Your task to perform on an android device: Search for pizza restaurants on Maps Image 0: 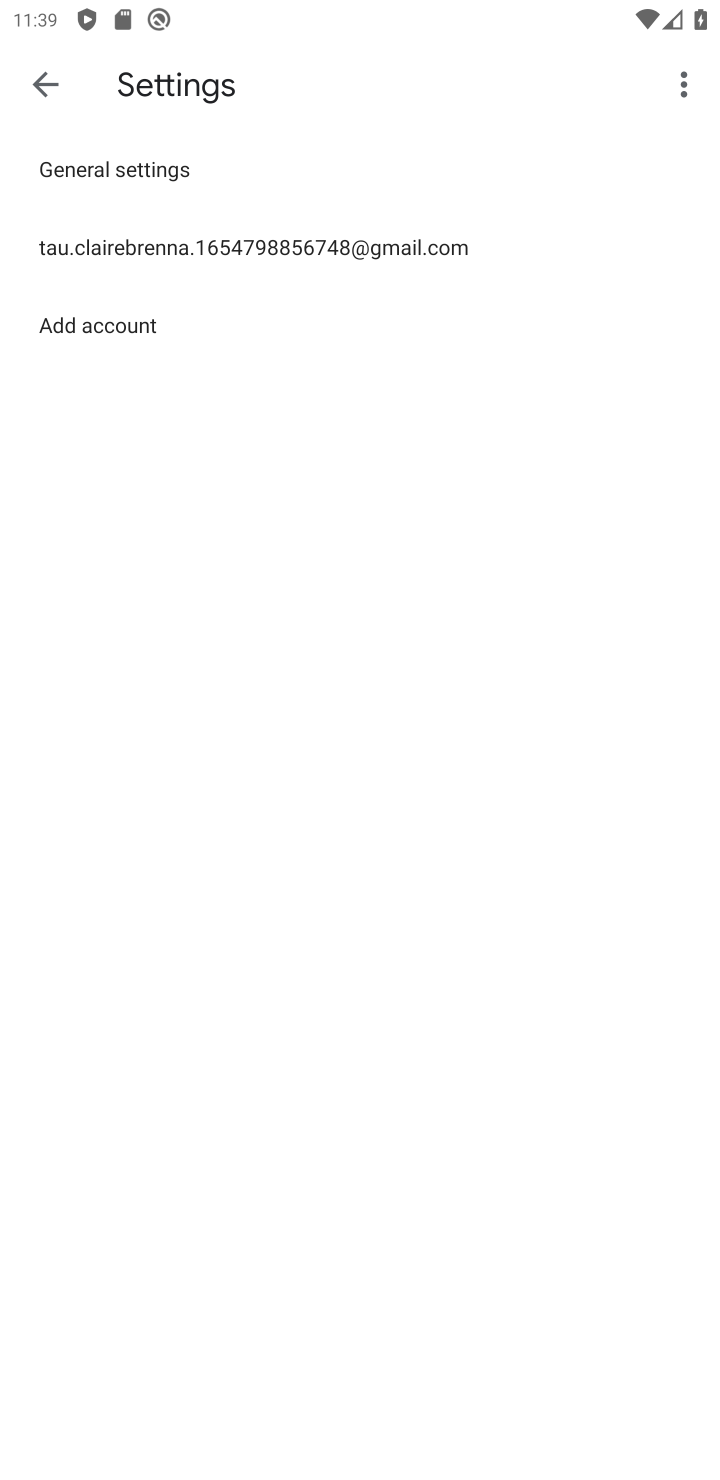
Step 0: press home button
Your task to perform on an android device: Search for pizza restaurants on Maps Image 1: 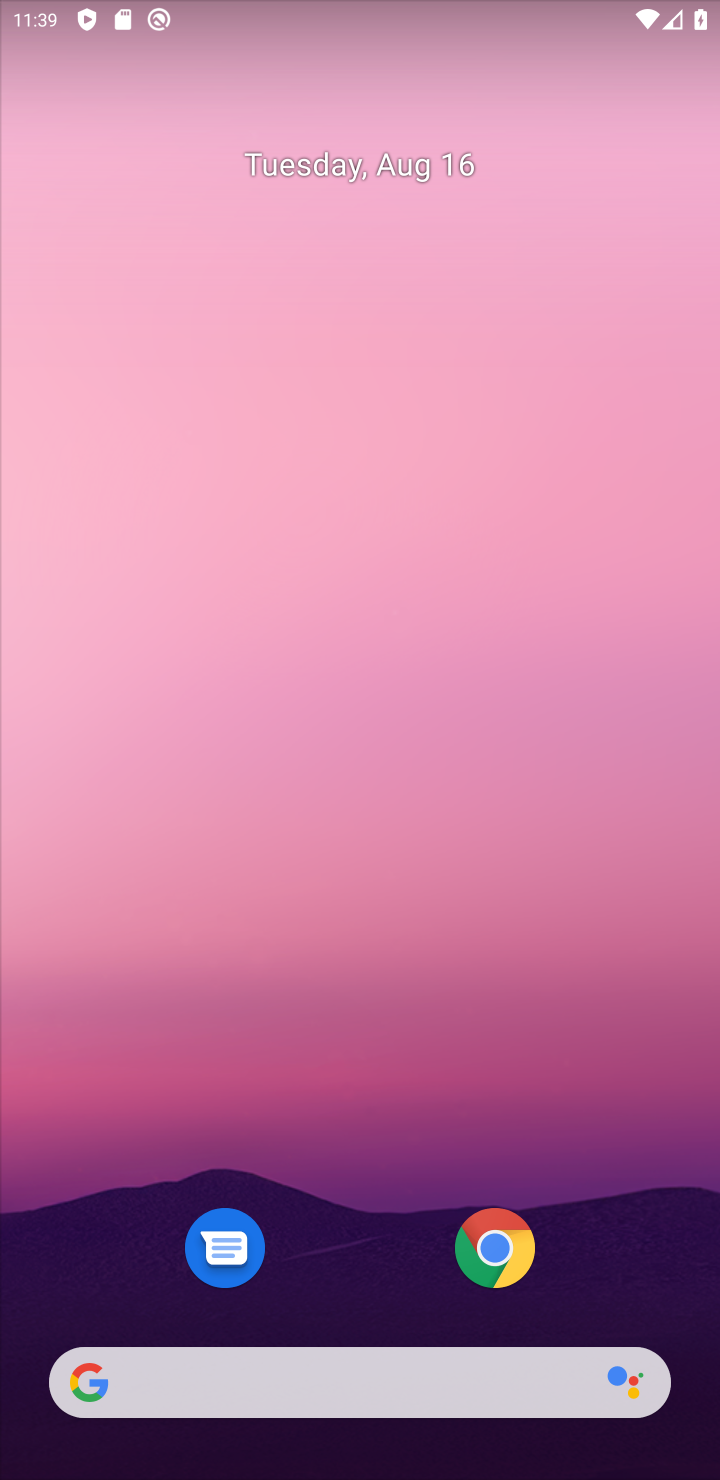
Step 1: drag from (349, 503) to (373, 285)
Your task to perform on an android device: Search for pizza restaurants on Maps Image 2: 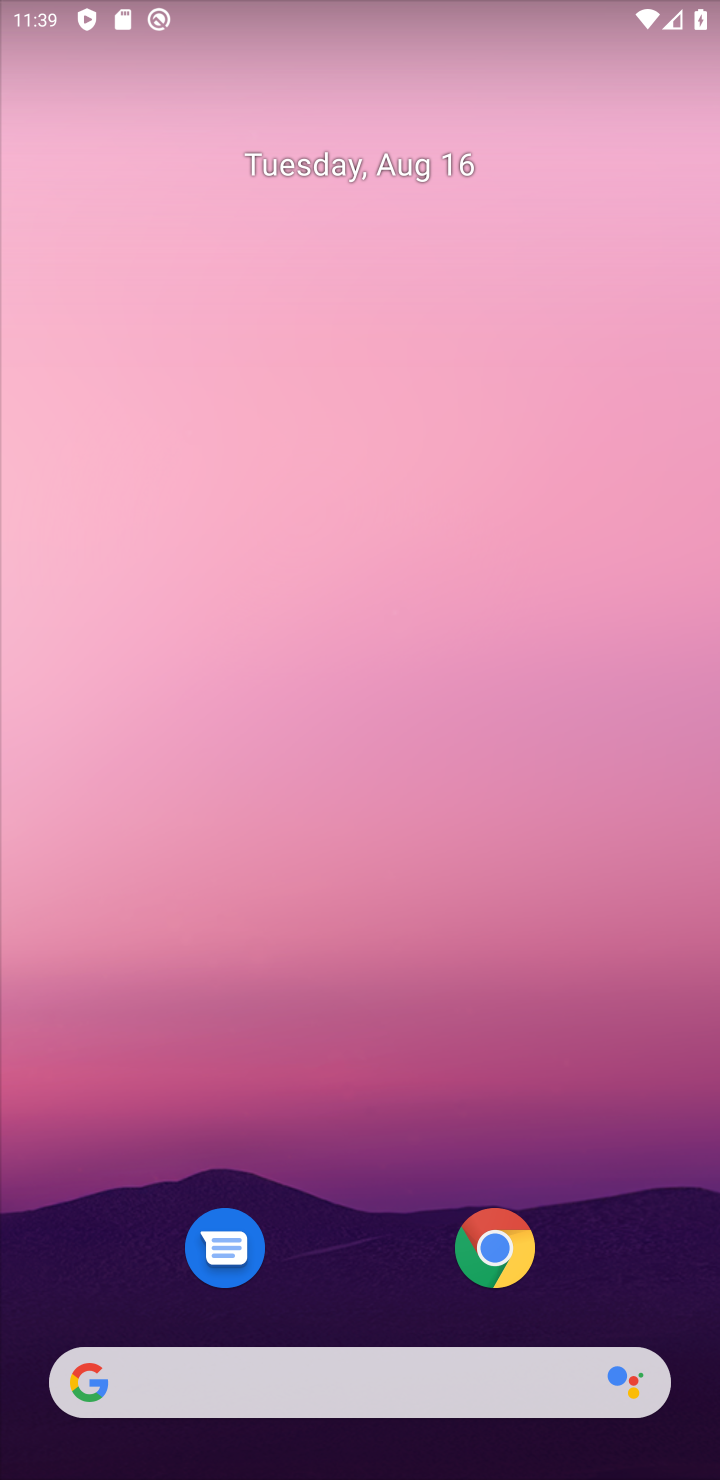
Step 2: drag from (325, 1014) to (355, 214)
Your task to perform on an android device: Search for pizza restaurants on Maps Image 3: 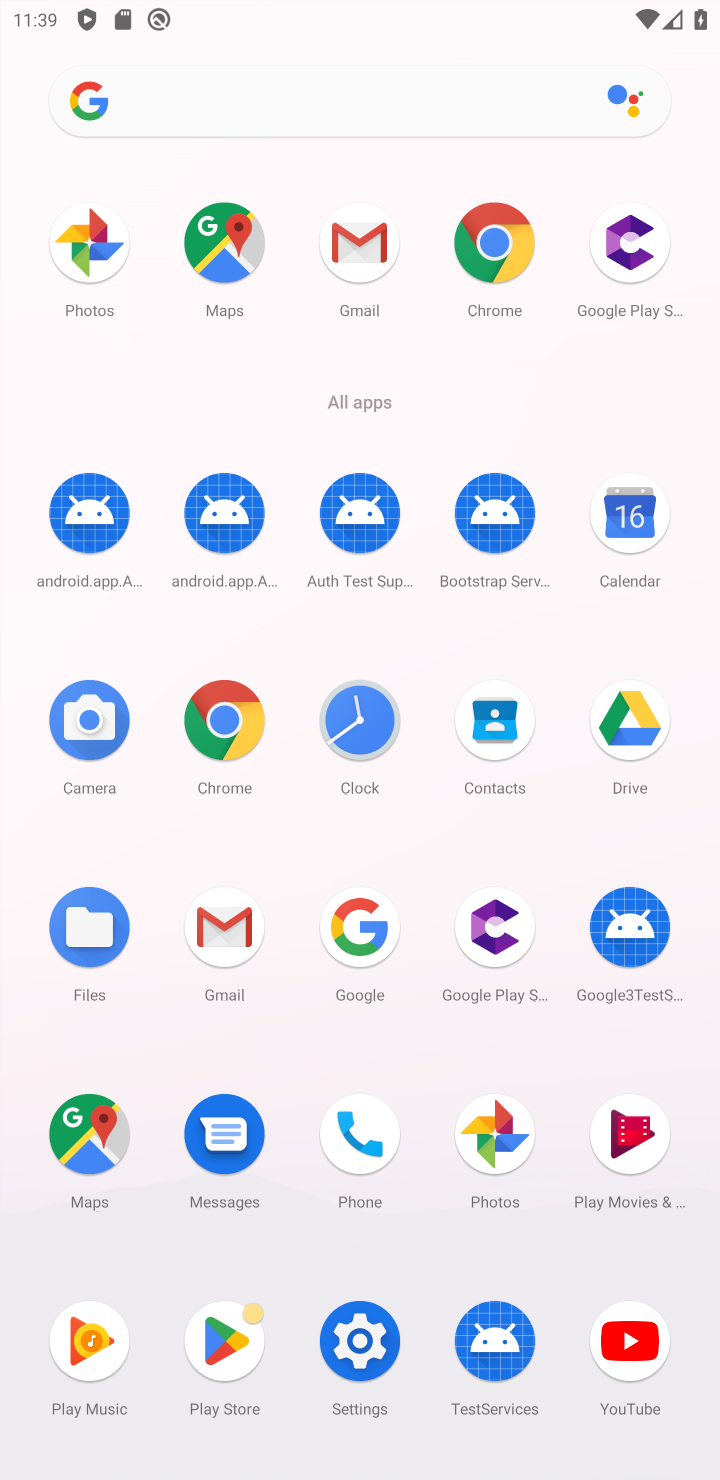
Step 3: click (522, 252)
Your task to perform on an android device: Search for pizza restaurants on Maps Image 4: 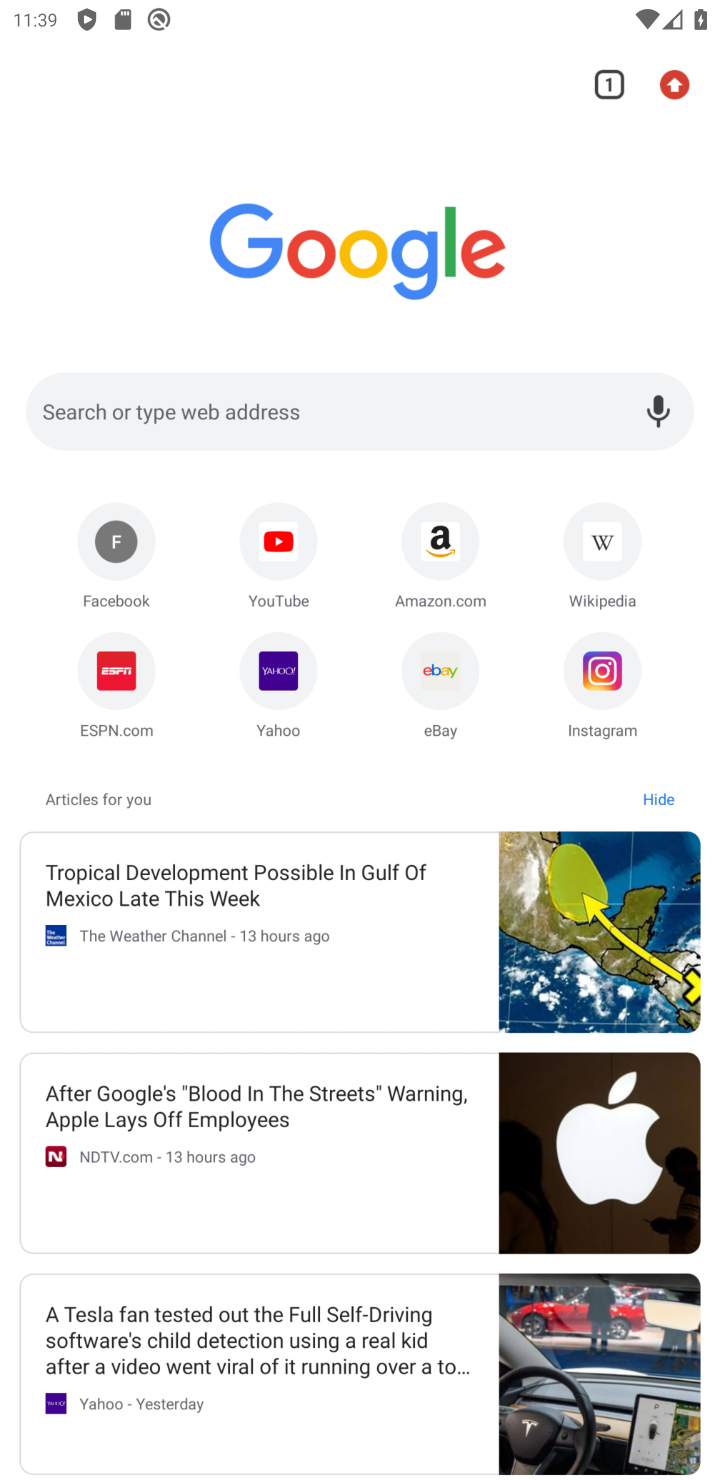
Step 4: task complete